Your task to perform on an android device: Is it going to rain this weekend? Image 0: 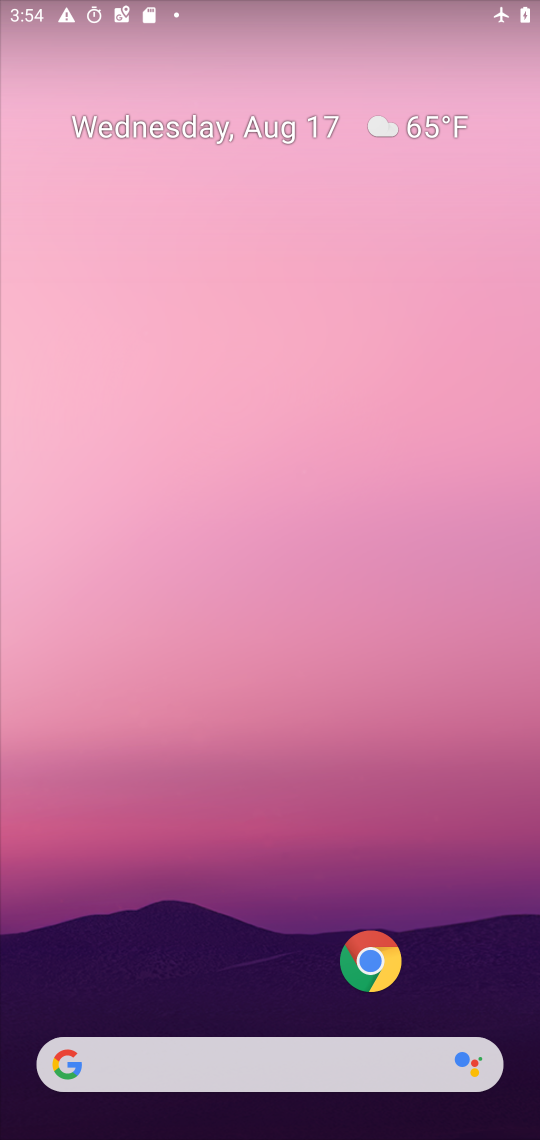
Step 0: drag from (255, 861) to (327, 77)
Your task to perform on an android device: Is it going to rain this weekend? Image 1: 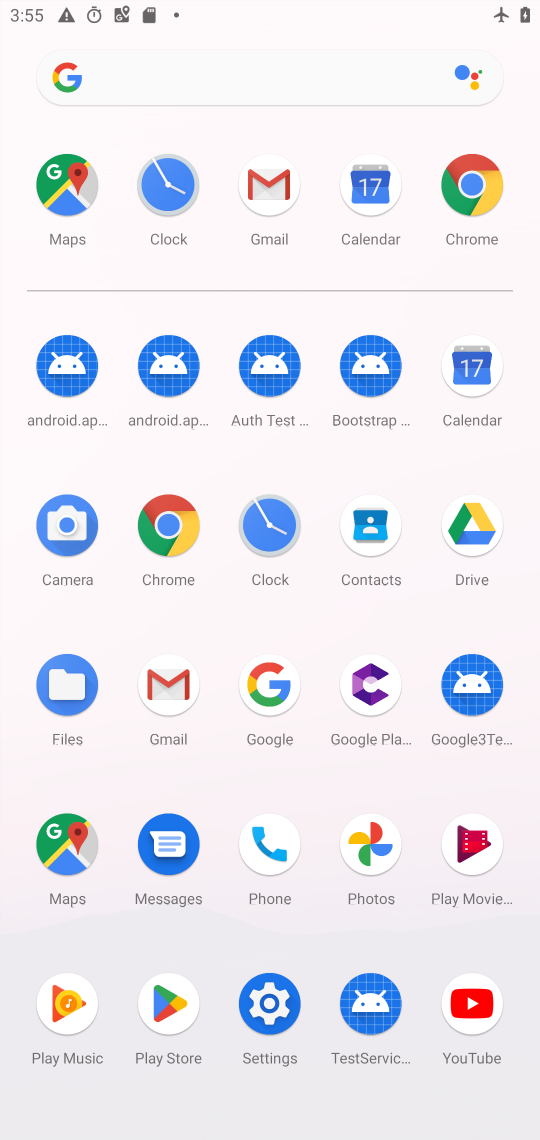
Step 1: click (287, 677)
Your task to perform on an android device: Is it going to rain this weekend? Image 2: 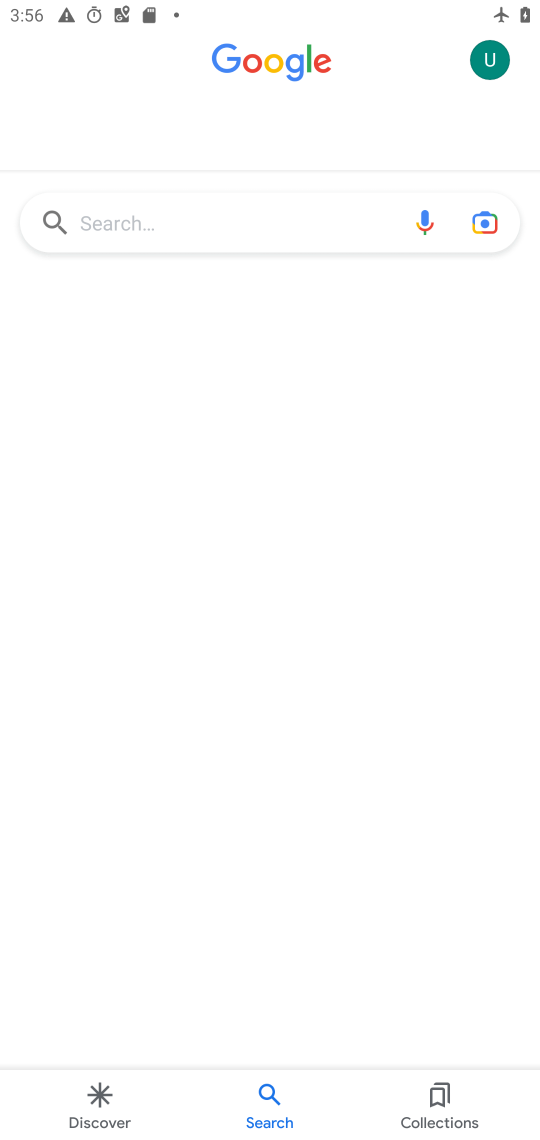
Step 2: click (242, 232)
Your task to perform on an android device: Is it going to rain this weekend? Image 3: 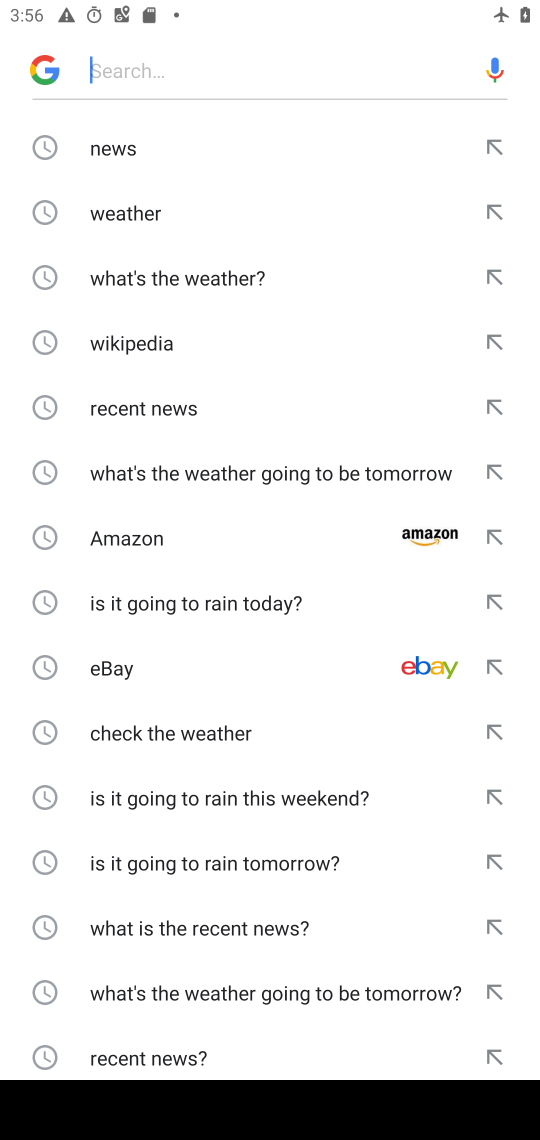
Step 3: click (214, 224)
Your task to perform on an android device: Is it going to rain this weekend? Image 4: 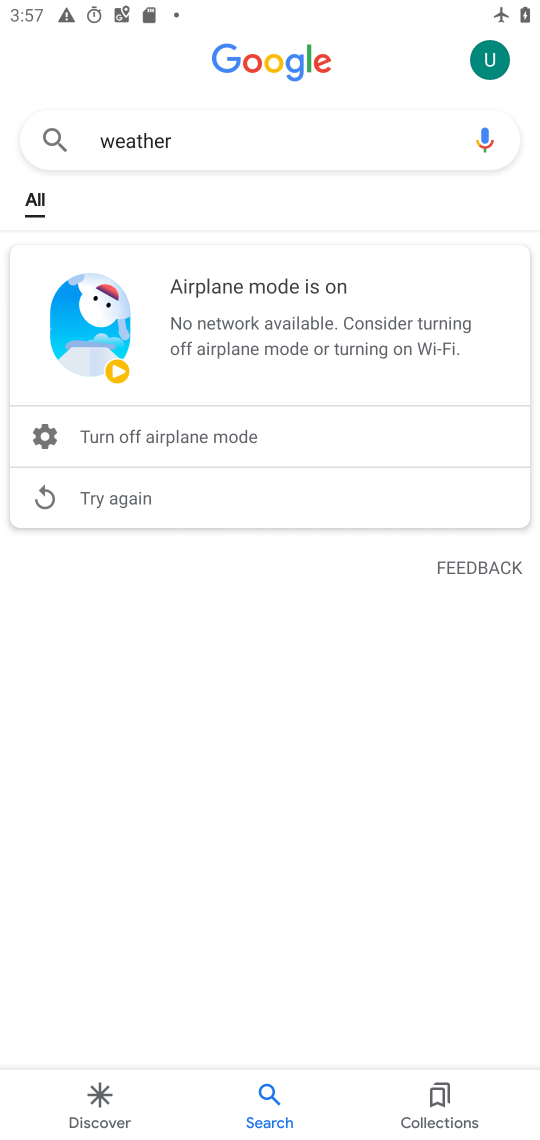
Step 4: task complete